Your task to perform on an android device: clear all cookies in the chrome app Image 0: 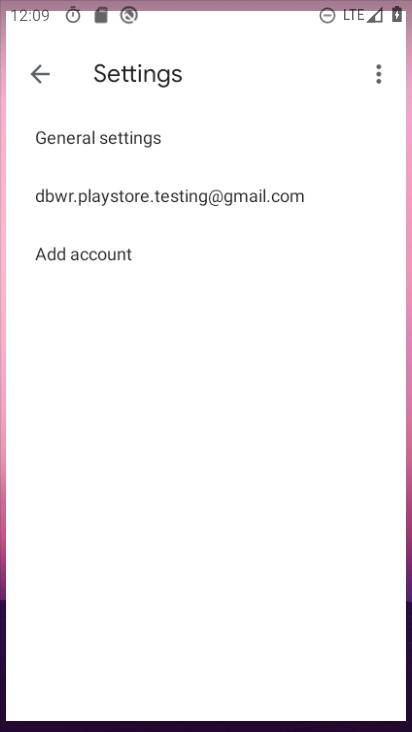
Step 0: drag from (206, 597) to (260, 93)
Your task to perform on an android device: clear all cookies in the chrome app Image 1: 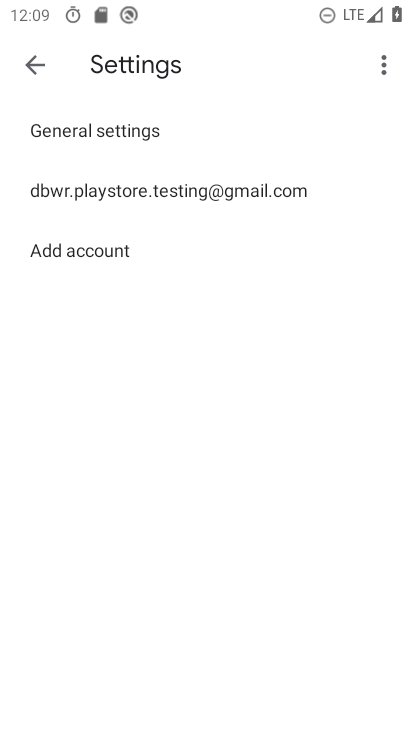
Step 1: press home button
Your task to perform on an android device: clear all cookies in the chrome app Image 2: 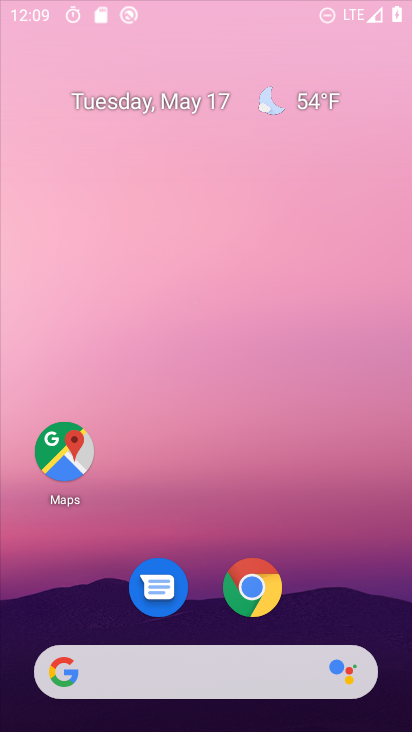
Step 2: drag from (258, 615) to (306, 166)
Your task to perform on an android device: clear all cookies in the chrome app Image 3: 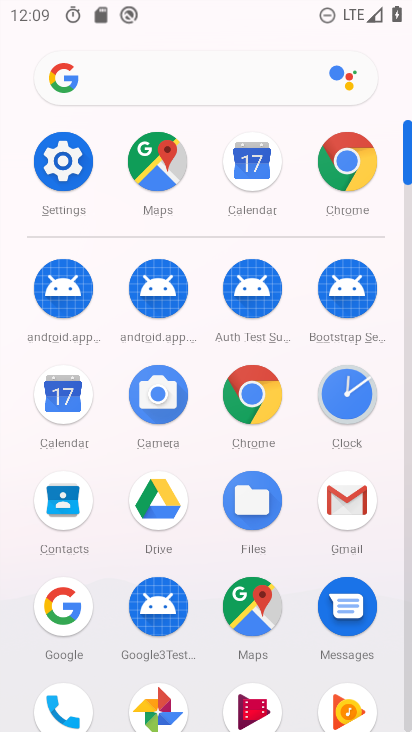
Step 3: click (242, 379)
Your task to perform on an android device: clear all cookies in the chrome app Image 4: 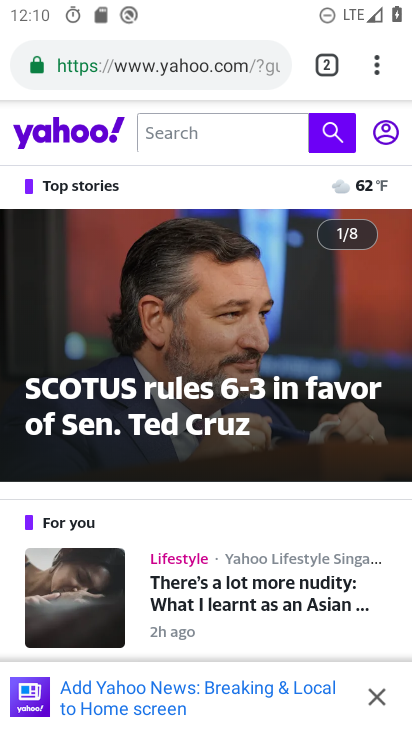
Step 4: click (374, 51)
Your task to perform on an android device: clear all cookies in the chrome app Image 5: 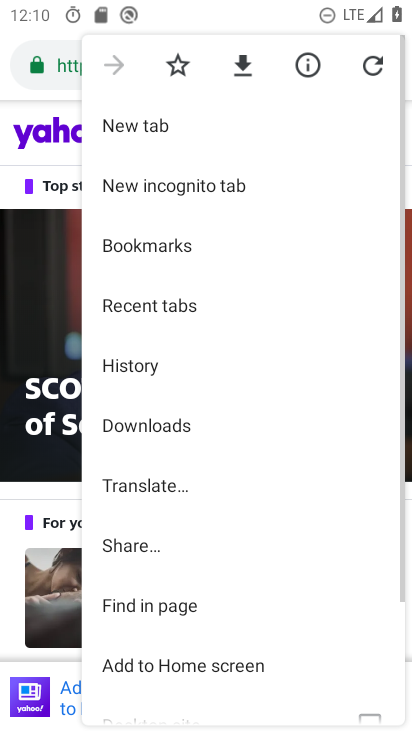
Step 5: drag from (189, 657) to (181, 263)
Your task to perform on an android device: clear all cookies in the chrome app Image 6: 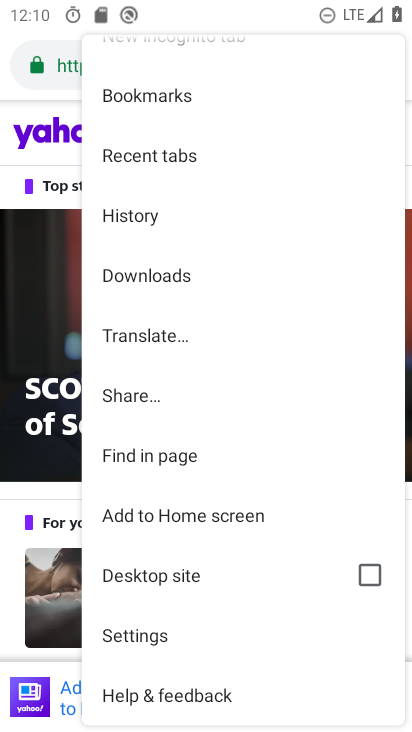
Step 6: click (200, 225)
Your task to perform on an android device: clear all cookies in the chrome app Image 7: 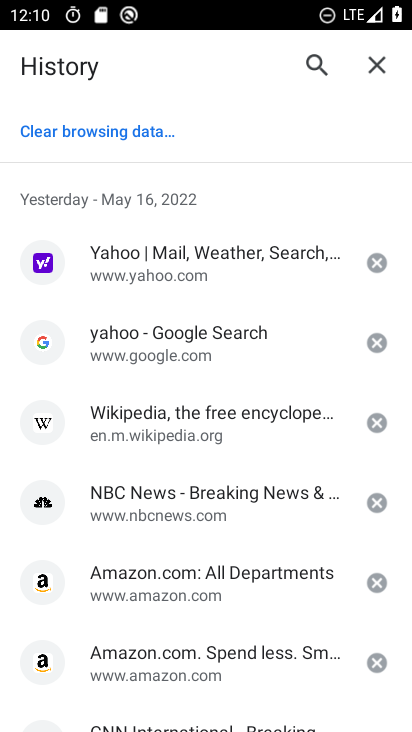
Step 7: click (81, 132)
Your task to perform on an android device: clear all cookies in the chrome app Image 8: 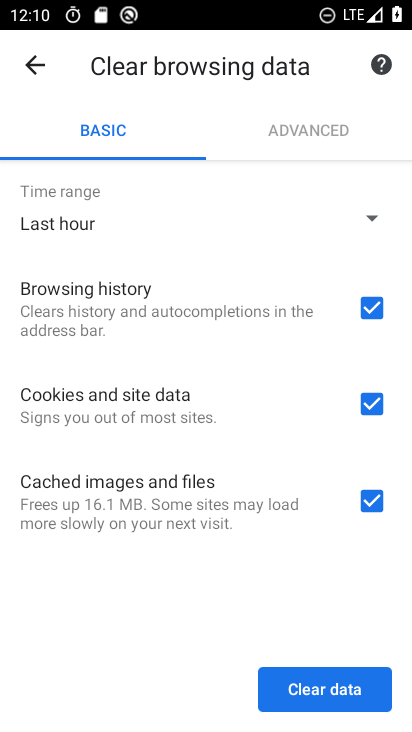
Step 8: click (368, 303)
Your task to perform on an android device: clear all cookies in the chrome app Image 9: 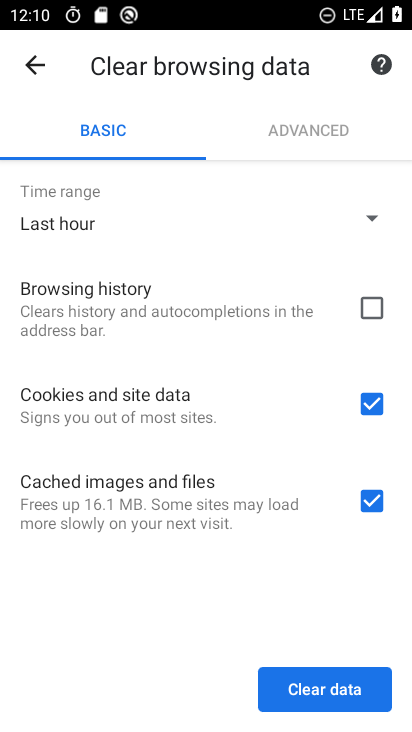
Step 9: click (303, 700)
Your task to perform on an android device: clear all cookies in the chrome app Image 10: 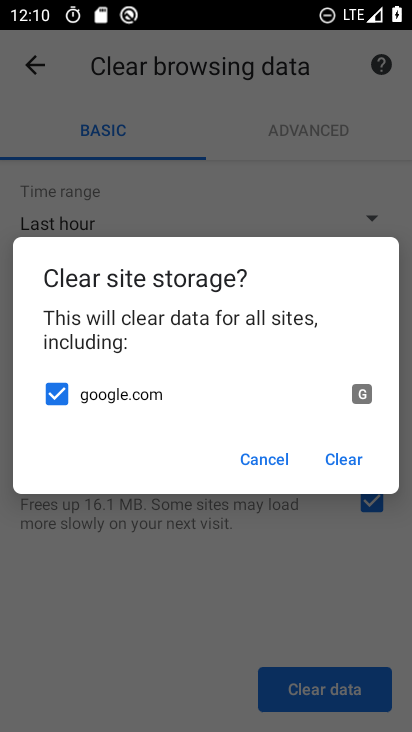
Step 10: click (328, 441)
Your task to perform on an android device: clear all cookies in the chrome app Image 11: 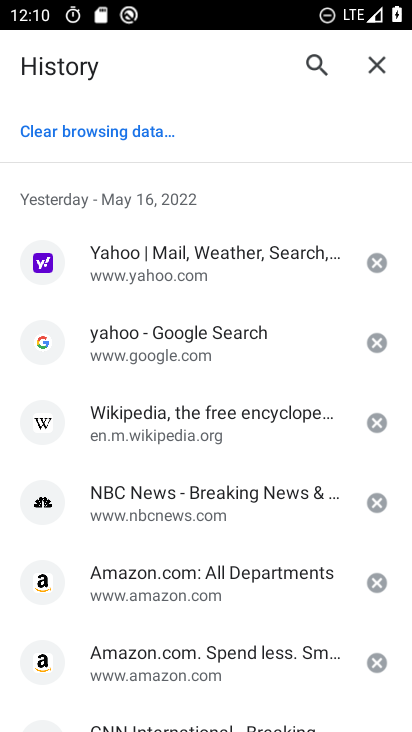
Step 11: task complete